Your task to perform on an android device: Show me popular games on the Play Store Image 0: 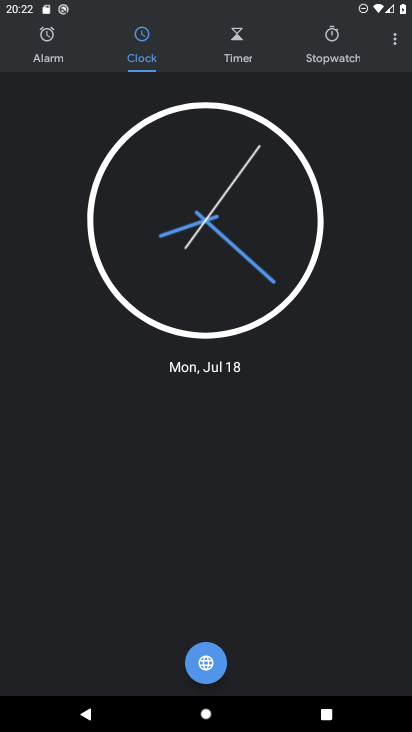
Step 0: press home button
Your task to perform on an android device: Show me popular games on the Play Store Image 1: 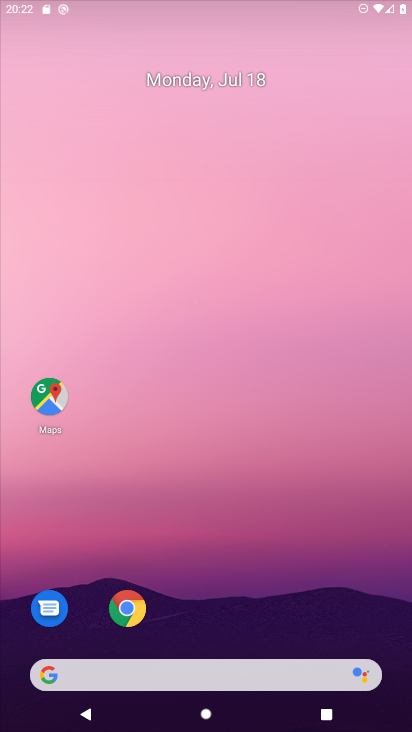
Step 1: drag from (205, 630) to (236, 119)
Your task to perform on an android device: Show me popular games on the Play Store Image 2: 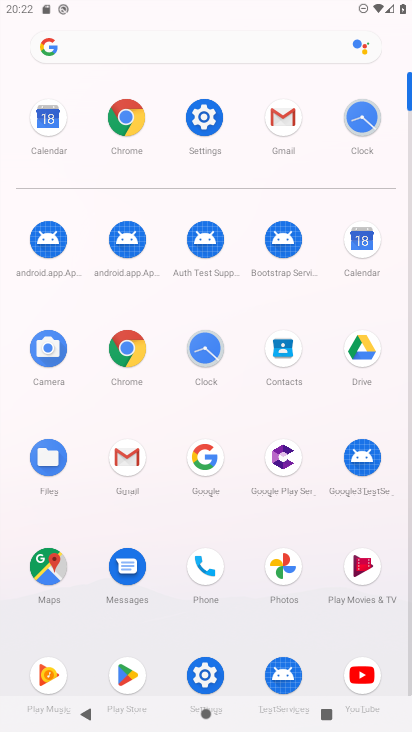
Step 2: click (125, 672)
Your task to perform on an android device: Show me popular games on the Play Store Image 3: 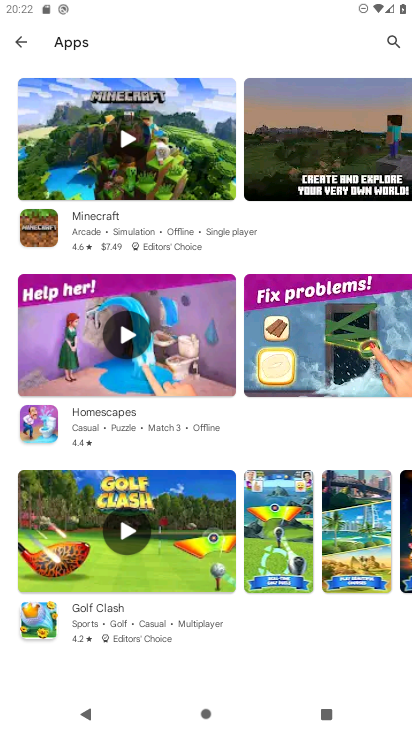
Step 3: task complete